Your task to perform on an android device: Show me recent news Image 0: 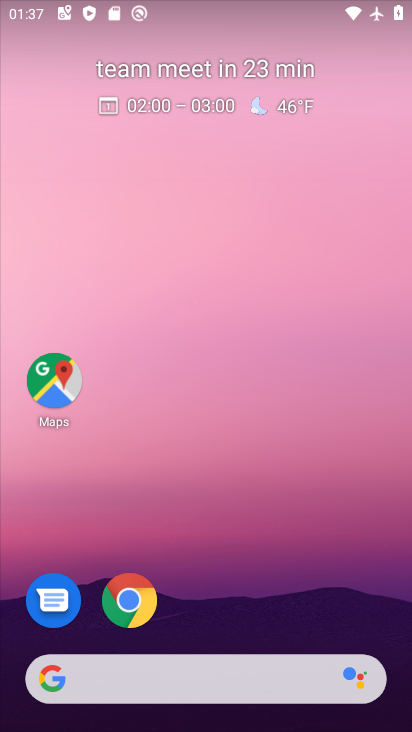
Step 0: click (212, 668)
Your task to perform on an android device: Show me recent news Image 1: 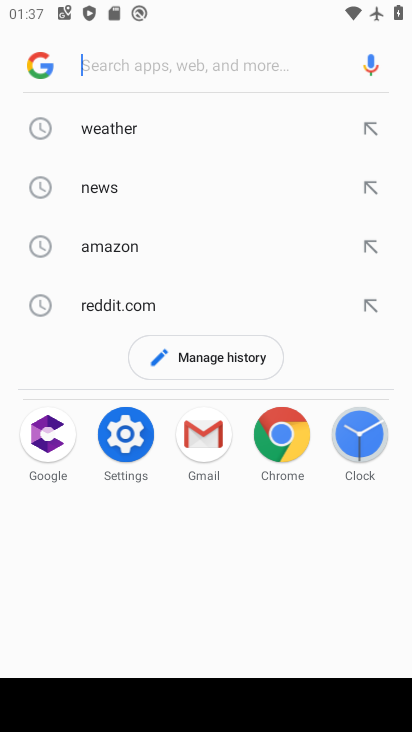
Step 1: drag from (189, 573) to (123, 121)
Your task to perform on an android device: Show me recent news Image 2: 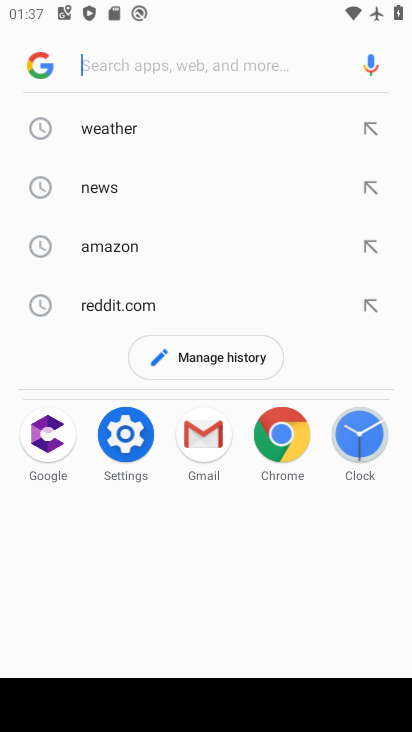
Step 2: click (124, 184)
Your task to perform on an android device: Show me recent news Image 3: 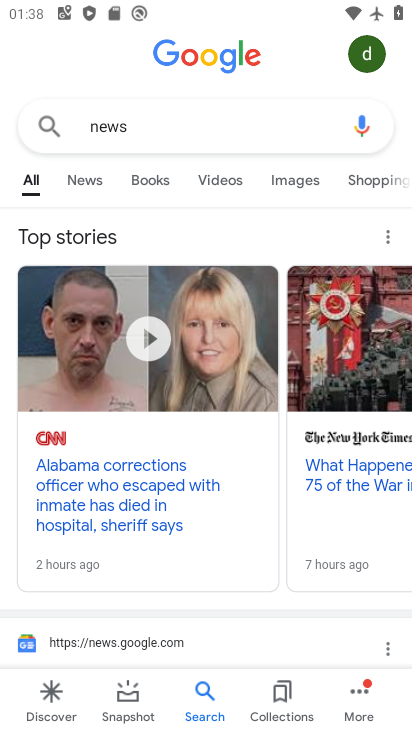
Step 3: task complete